Your task to perform on an android device: turn smart compose on in the gmail app Image 0: 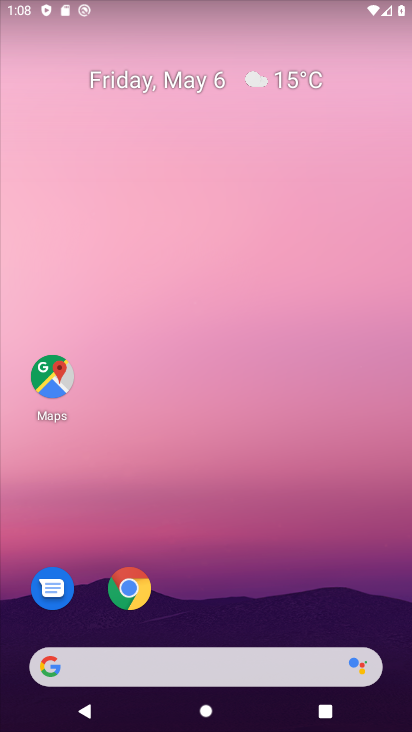
Step 0: drag from (193, 578) to (239, 504)
Your task to perform on an android device: turn smart compose on in the gmail app Image 1: 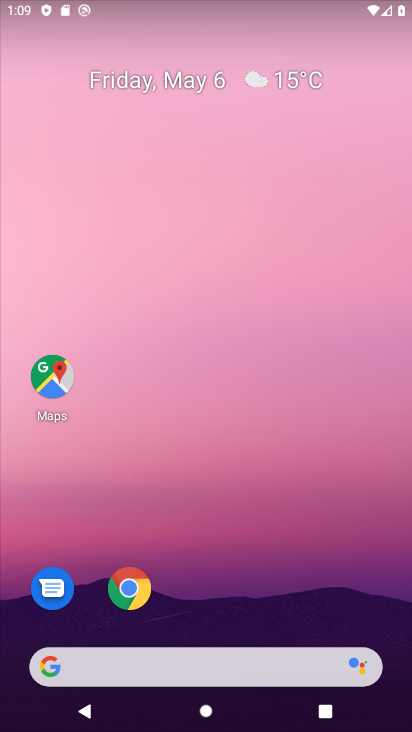
Step 1: drag from (190, 602) to (218, 185)
Your task to perform on an android device: turn smart compose on in the gmail app Image 2: 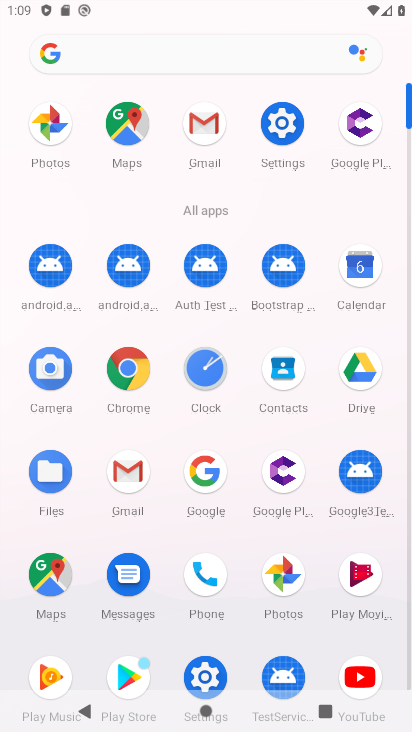
Step 2: click (119, 474)
Your task to perform on an android device: turn smart compose on in the gmail app Image 3: 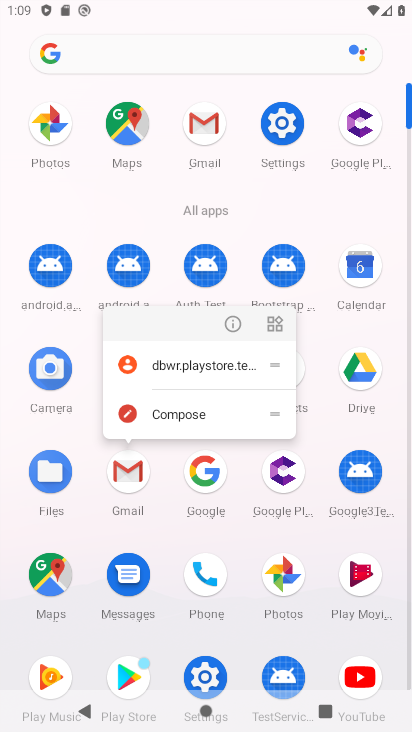
Step 3: click (240, 318)
Your task to perform on an android device: turn smart compose on in the gmail app Image 4: 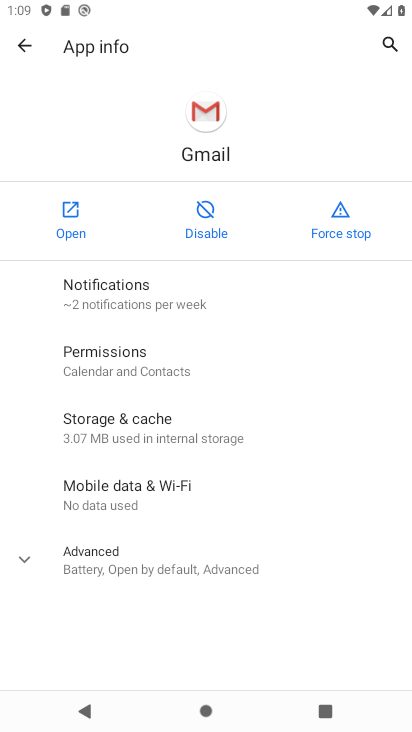
Step 4: click (75, 224)
Your task to perform on an android device: turn smart compose on in the gmail app Image 5: 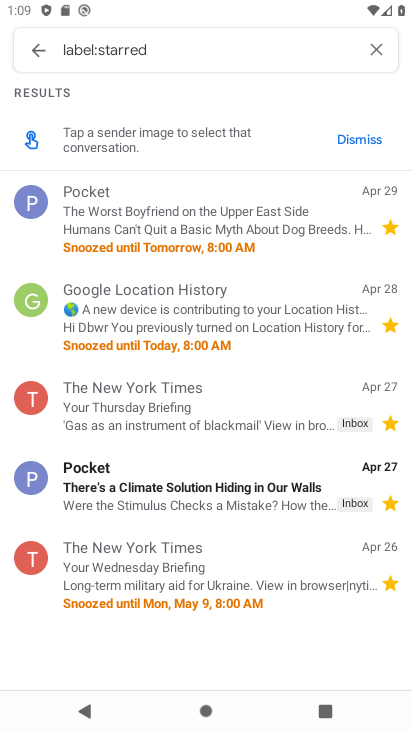
Step 5: click (31, 58)
Your task to perform on an android device: turn smart compose on in the gmail app Image 6: 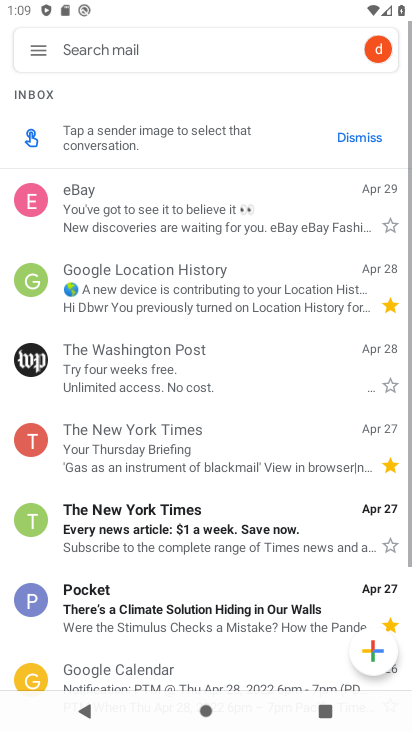
Step 6: click (31, 49)
Your task to perform on an android device: turn smart compose on in the gmail app Image 7: 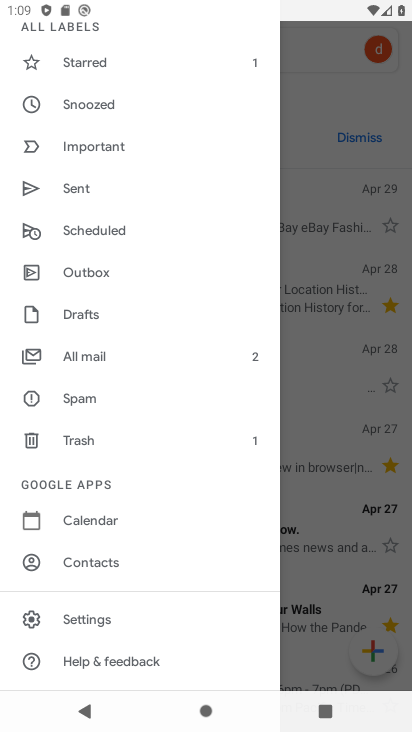
Step 7: click (95, 620)
Your task to perform on an android device: turn smart compose on in the gmail app Image 8: 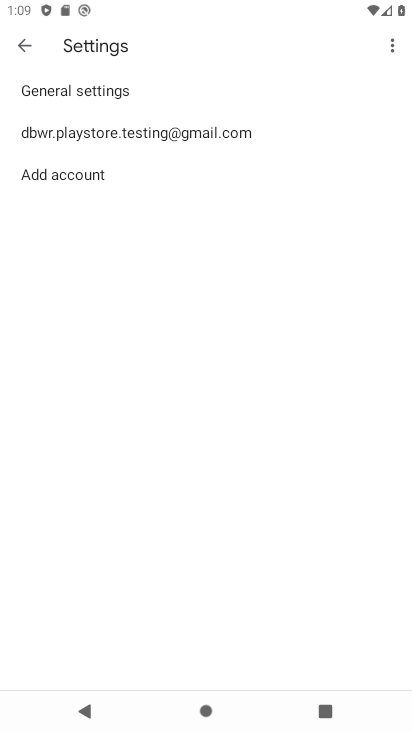
Step 8: click (128, 124)
Your task to perform on an android device: turn smart compose on in the gmail app Image 9: 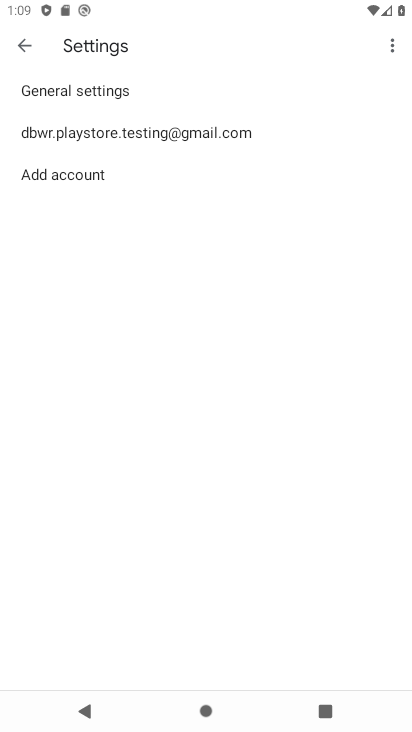
Step 9: click (128, 124)
Your task to perform on an android device: turn smart compose on in the gmail app Image 10: 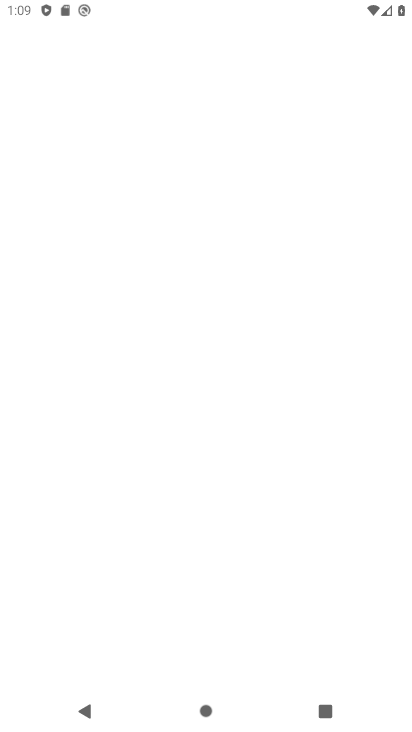
Step 10: task complete